Your task to perform on an android device: open app "Yahoo Mail" (install if not already installed) and enter user name: "lawsuit@inbox.com" and password: "pooch" Image 0: 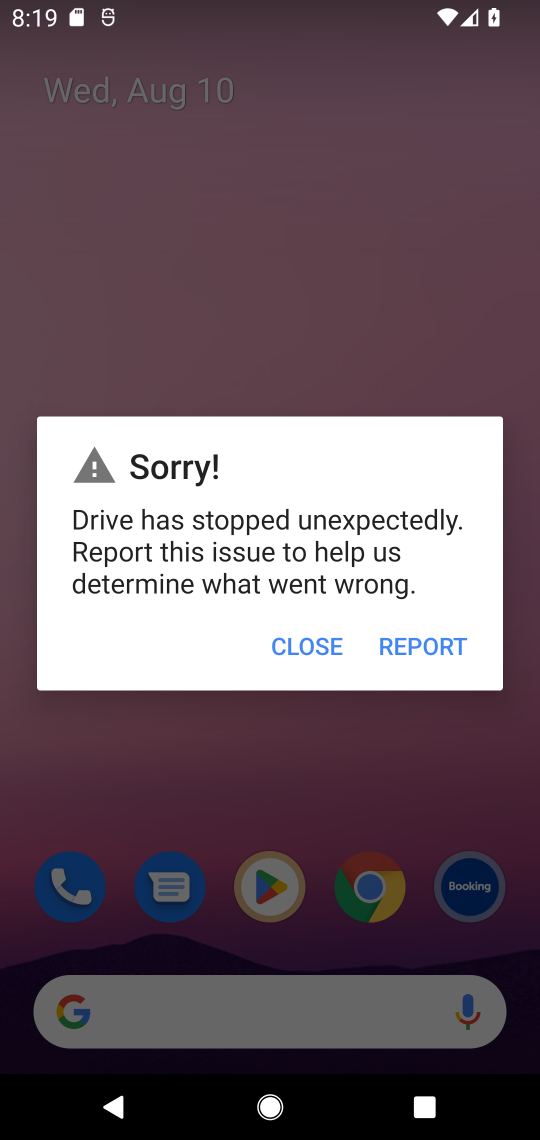
Step 0: click (302, 667)
Your task to perform on an android device: open app "Yahoo Mail" (install if not already installed) and enter user name: "lawsuit@inbox.com" and password: "pooch" Image 1: 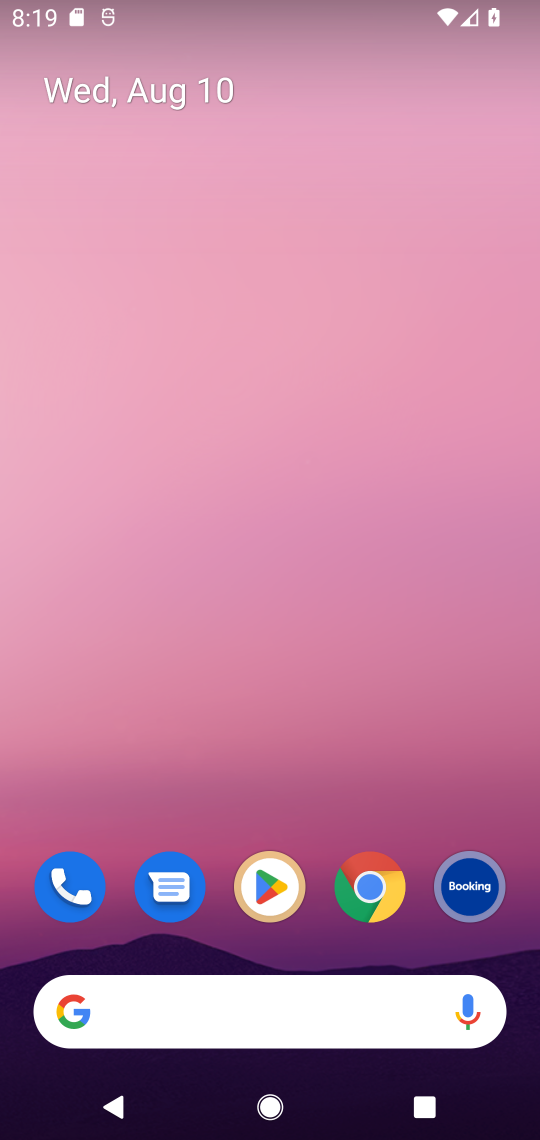
Step 1: click (275, 860)
Your task to perform on an android device: open app "Yahoo Mail" (install if not already installed) and enter user name: "lawsuit@inbox.com" and password: "pooch" Image 2: 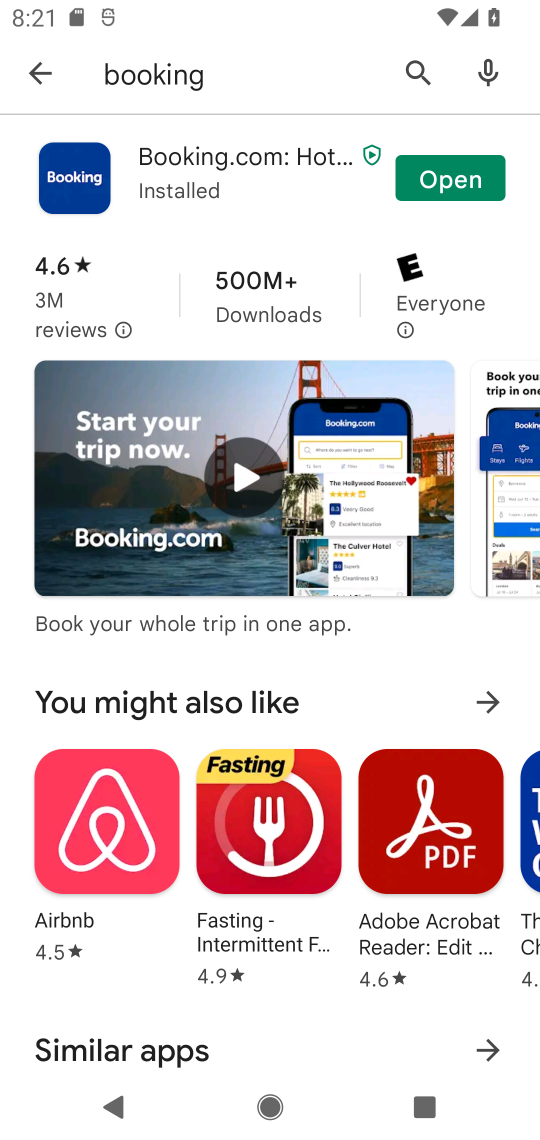
Step 2: click (425, 82)
Your task to perform on an android device: open app "Yahoo Mail" (install if not already installed) and enter user name: "lawsuit@inbox.com" and password: "pooch" Image 3: 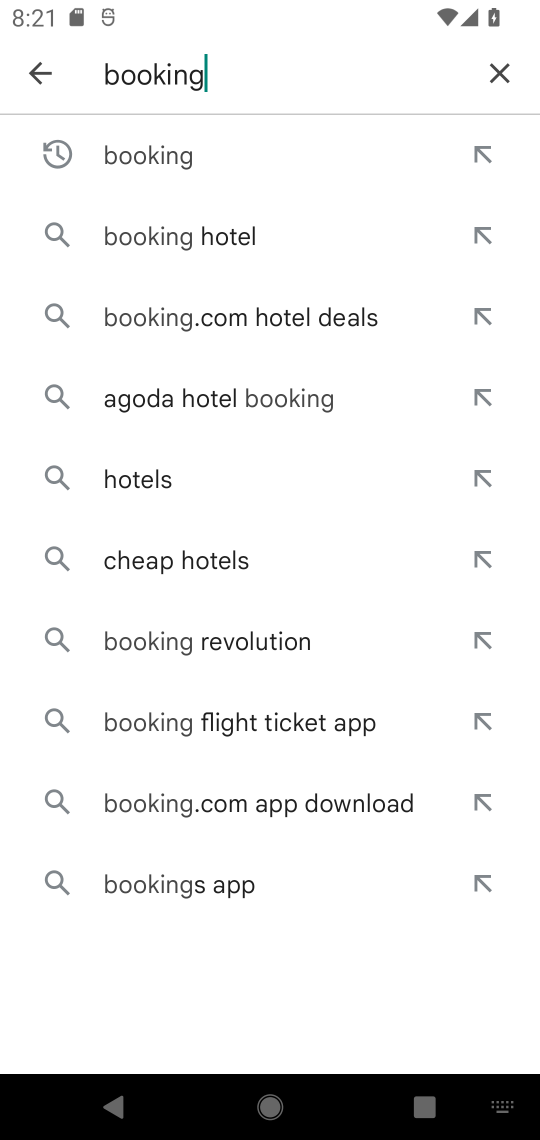
Step 3: click (514, 90)
Your task to perform on an android device: open app "Yahoo Mail" (install if not already installed) and enter user name: "lawsuit@inbox.com" and password: "pooch" Image 4: 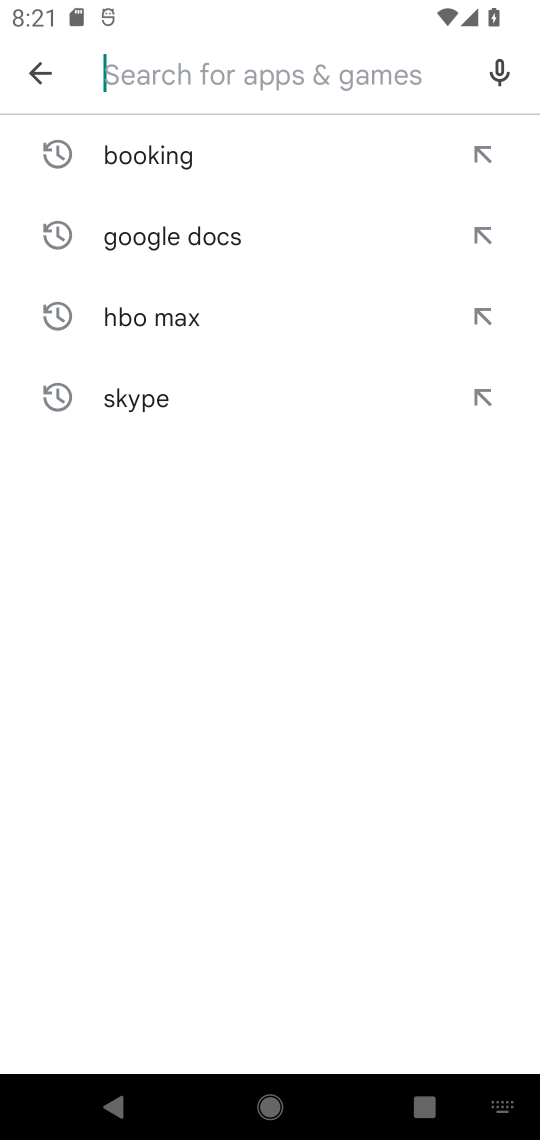
Step 4: type "yahoo"
Your task to perform on an android device: open app "Yahoo Mail" (install if not already installed) and enter user name: "lawsuit@inbox.com" and password: "pooch" Image 5: 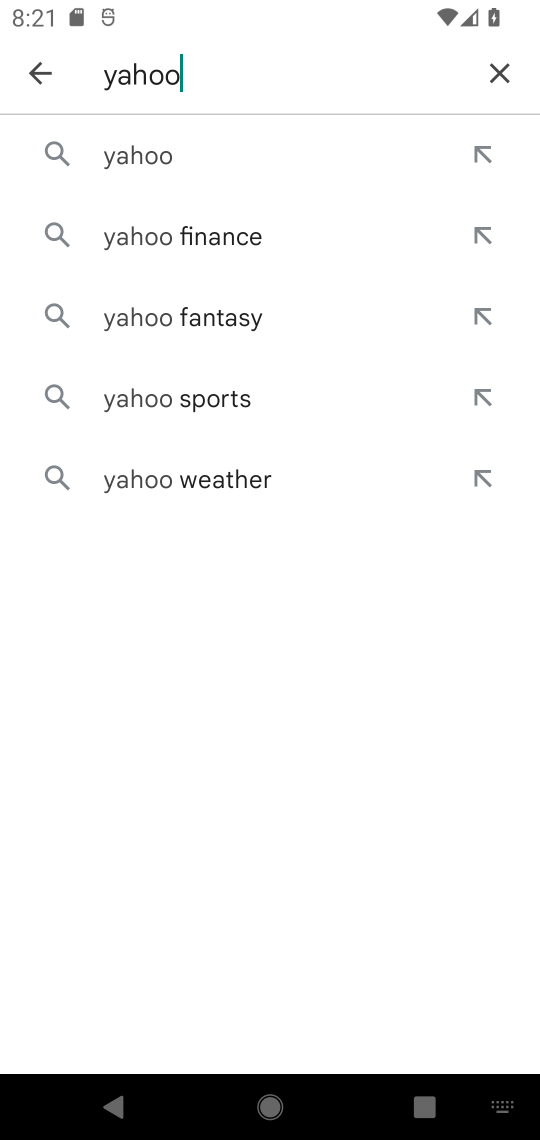
Step 5: click (206, 151)
Your task to perform on an android device: open app "Yahoo Mail" (install if not already installed) and enter user name: "lawsuit@inbox.com" and password: "pooch" Image 6: 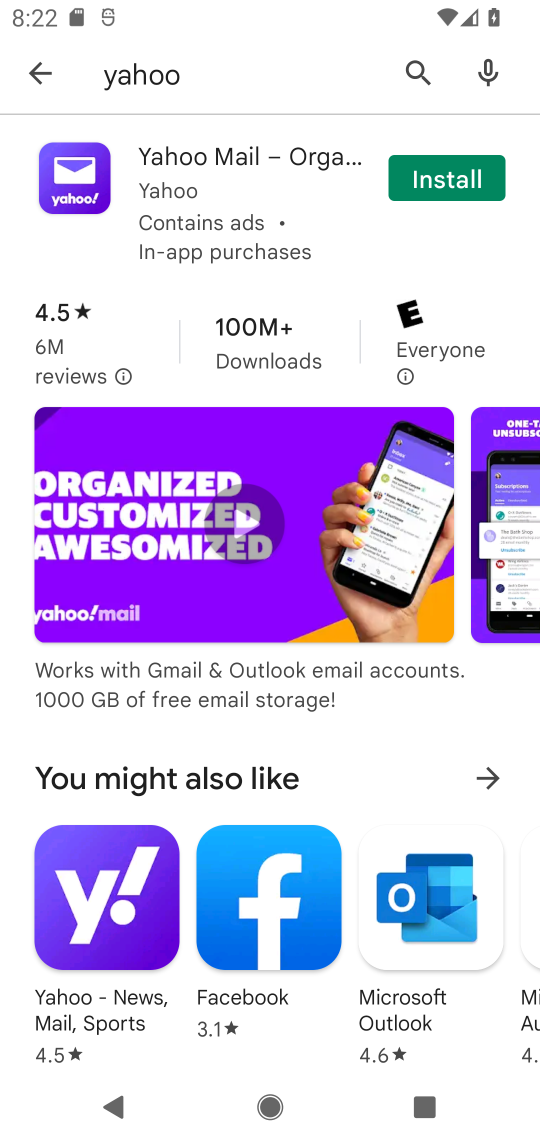
Step 6: click (438, 178)
Your task to perform on an android device: open app "Yahoo Mail" (install if not already installed) and enter user name: "lawsuit@inbox.com" and password: "pooch" Image 7: 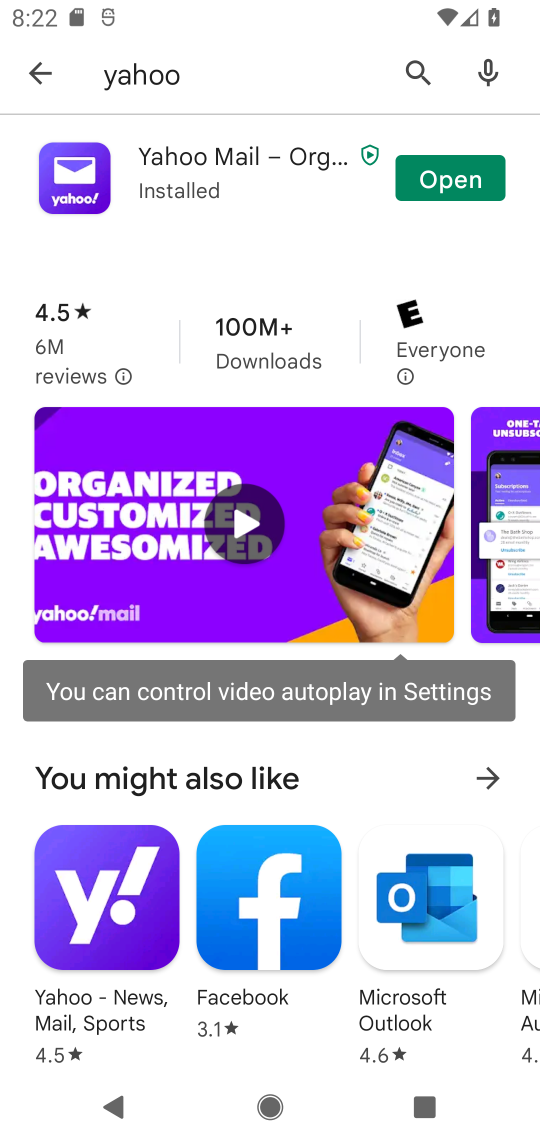
Step 7: click (456, 189)
Your task to perform on an android device: open app "Yahoo Mail" (install if not already installed) and enter user name: "lawsuit@inbox.com" and password: "pooch" Image 8: 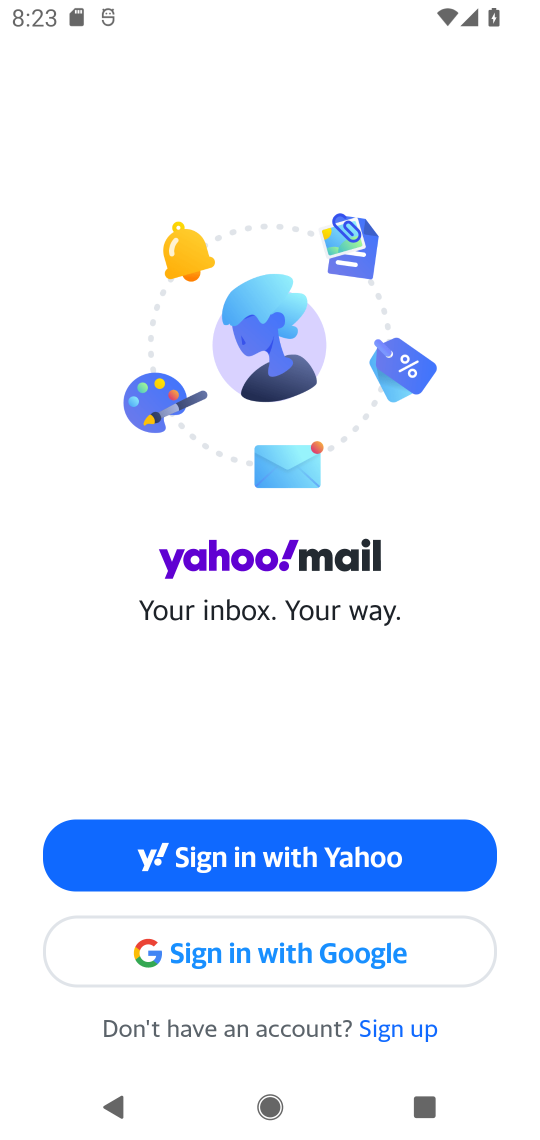
Step 8: click (310, 865)
Your task to perform on an android device: open app "Yahoo Mail" (install if not already installed) and enter user name: "lawsuit@inbox.com" and password: "pooch" Image 9: 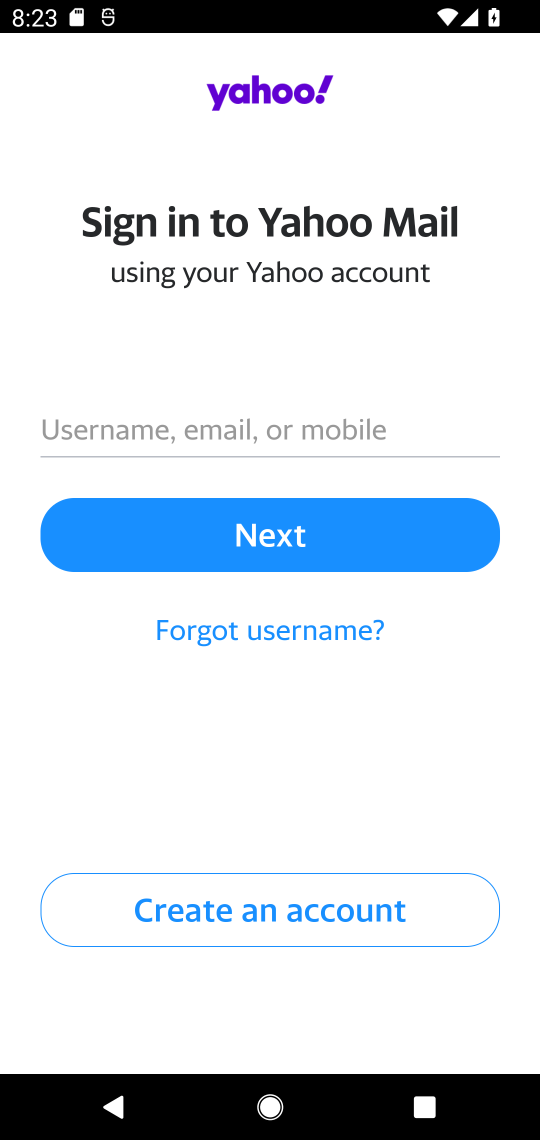
Step 9: click (280, 436)
Your task to perform on an android device: open app "Yahoo Mail" (install if not already installed) and enter user name: "lawsuit@inbox.com" and password: "pooch" Image 10: 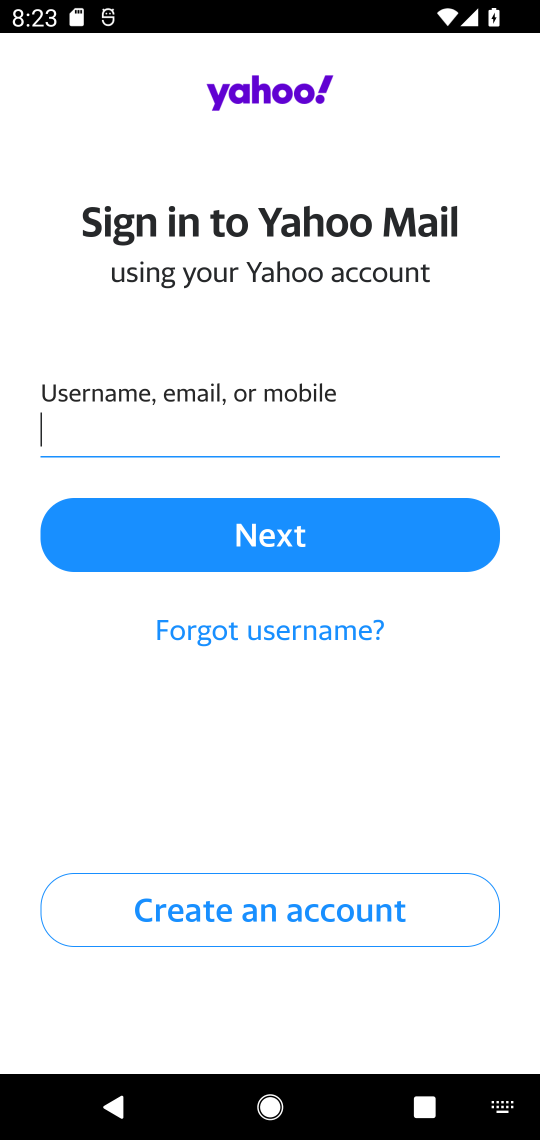
Step 10: click (414, 413)
Your task to perform on an android device: open app "Yahoo Mail" (install if not already installed) and enter user name: "lawsuit@inbox.com" and password: "pooch" Image 11: 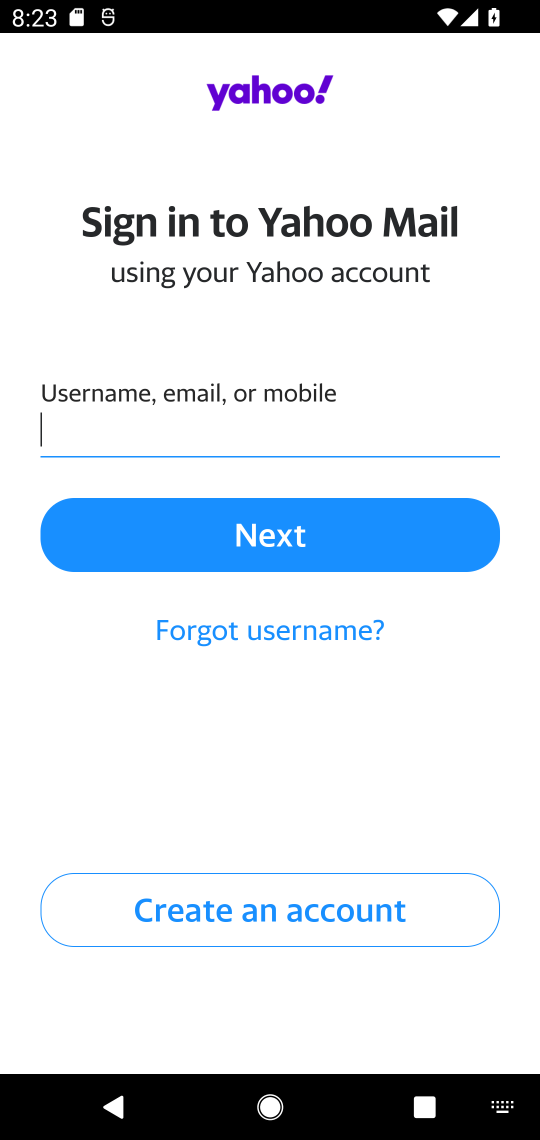
Step 11: type "lawsuit@inbox.com"
Your task to perform on an android device: open app "Yahoo Mail" (install if not already installed) and enter user name: "lawsuit@inbox.com" and password: "pooch" Image 12: 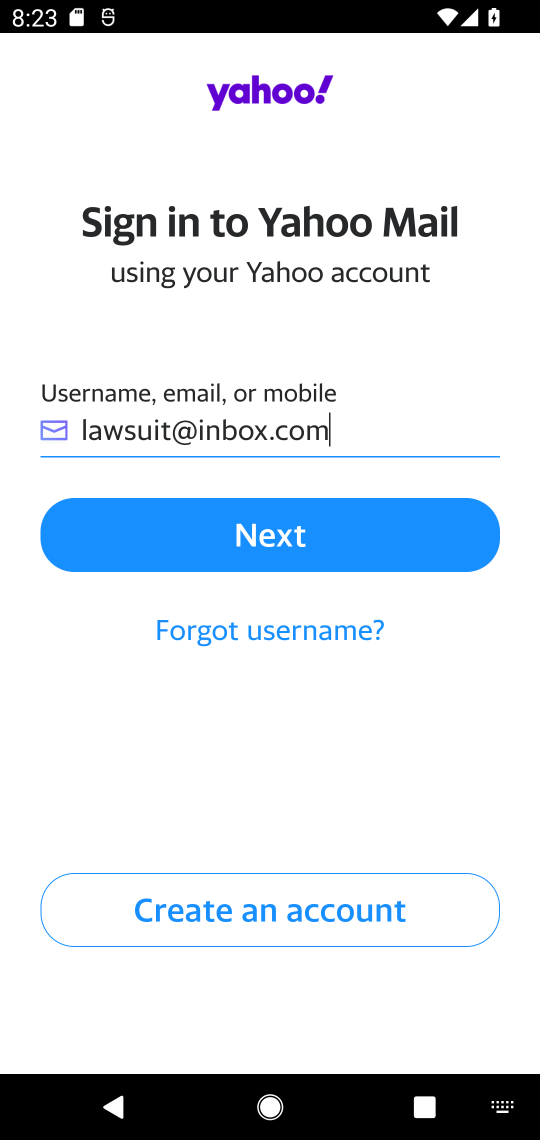
Step 12: click (317, 527)
Your task to perform on an android device: open app "Yahoo Mail" (install if not already installed) and enter user name: "lawsuit@inbox.com" and password: "pooch" Image 13: 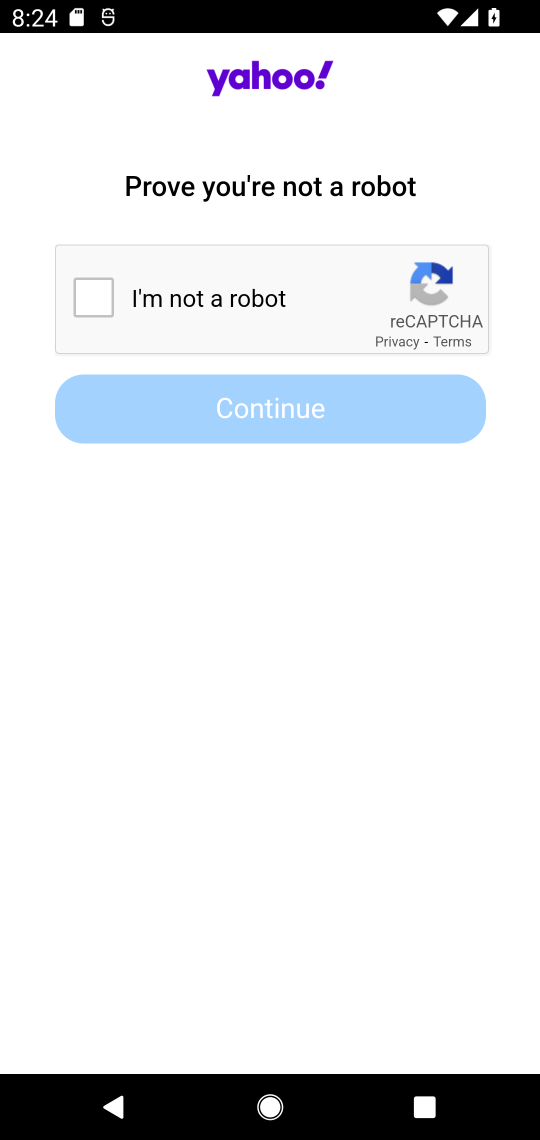
Step 13: click (189, 319)
Your task to perform on an android device: open app "Yahoo Mail" (install if not already installed) and enter user name: "lawsuit@inbox.com" and password: "pooch" Image 14: 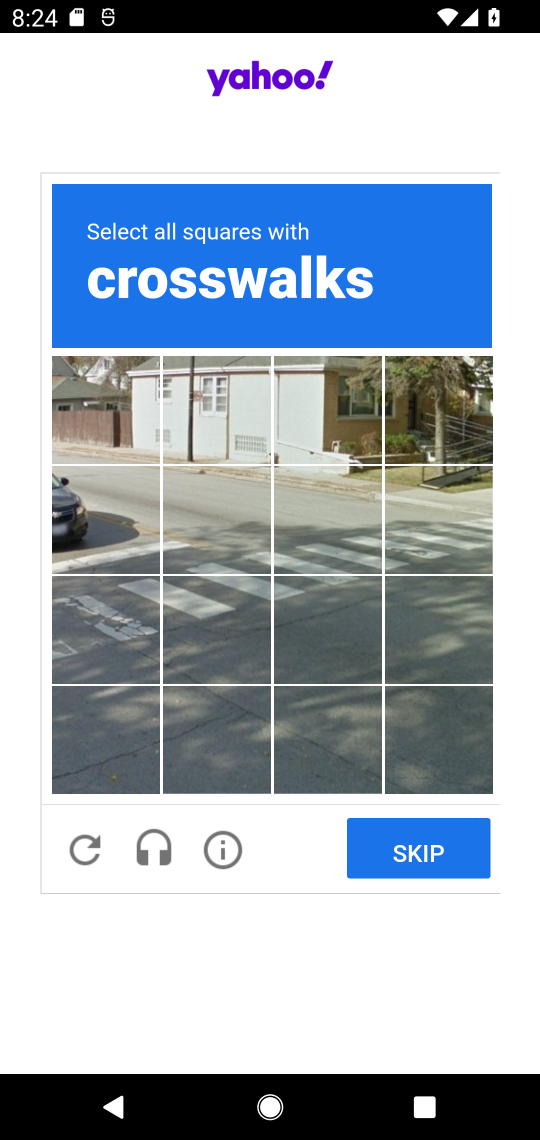
Step 14: click (128, 656)
Your task to perform on an android device: open app "Yahoo Mail" (install if not already installed) and enter user name: "lawsuit@inbox.com" and password: "pooch" Image 15: 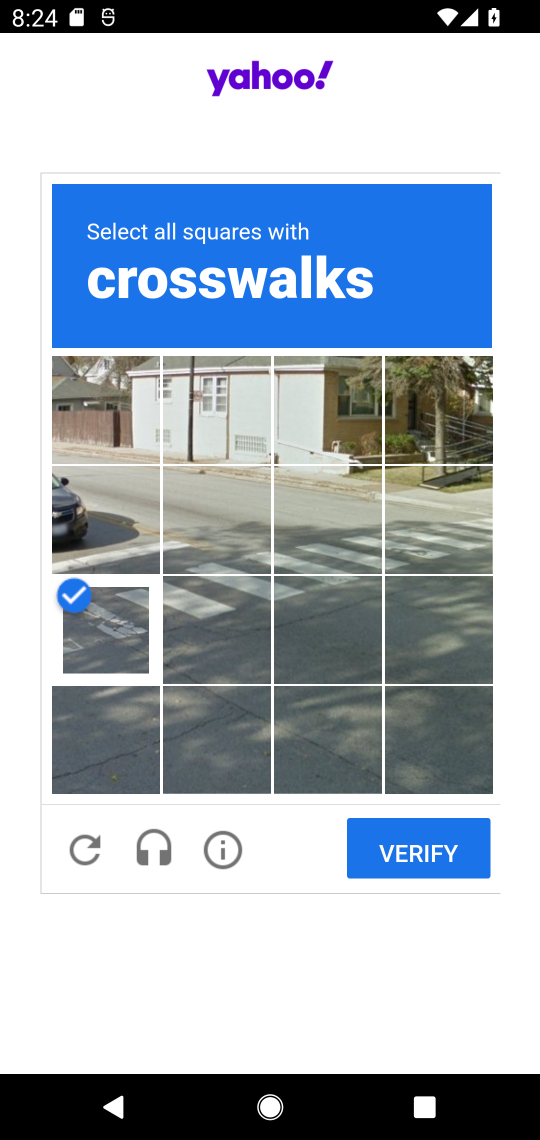
Step 15: click (208, 639)
Your task to perform on an android device: open app "Yahoo Mail" (install if not already installed) and enter user name: "lawsuit@inbox.com" and password: "pooch" Image 16: 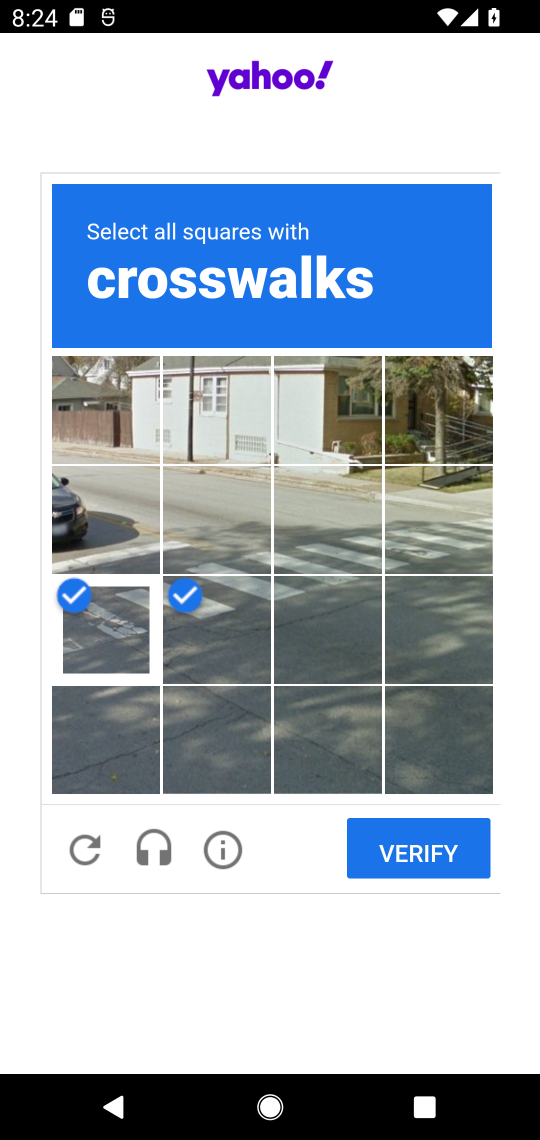
Step 16: click (308, 630)
Your task to perform on an android device: open app "Yahoo Mail" (install if not already installed) and enter user name: "lawsuit@inbox.com" and password: "pooch" Image 17: 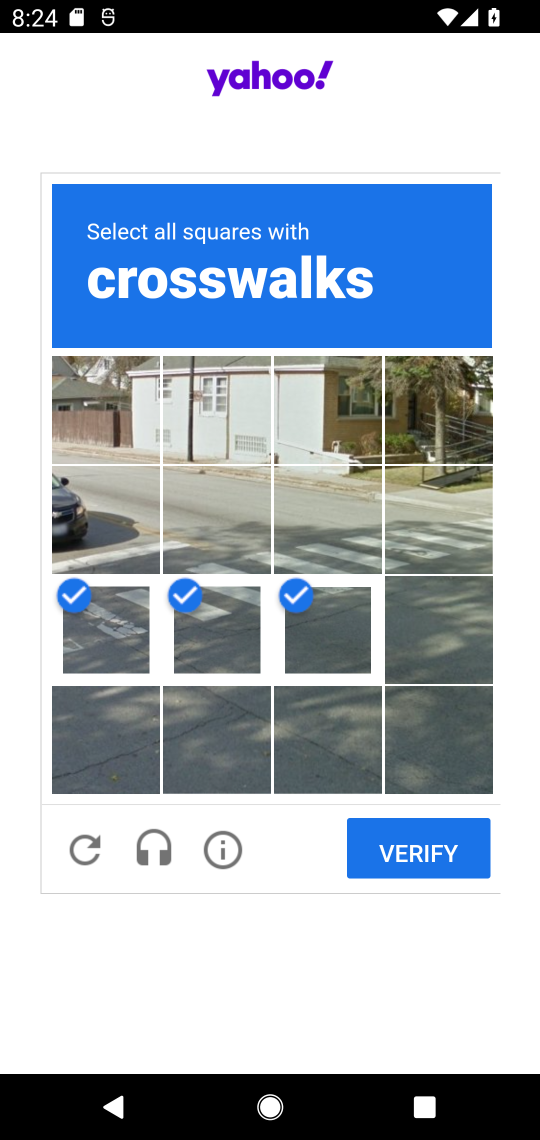
Step 17: click (408, 515)
Your task to perform on an android device: open app "Yahoo Mail" (install if not already installed) and enter user name: "lawsuit@inbox.com" and password: "pooch" Image 18: 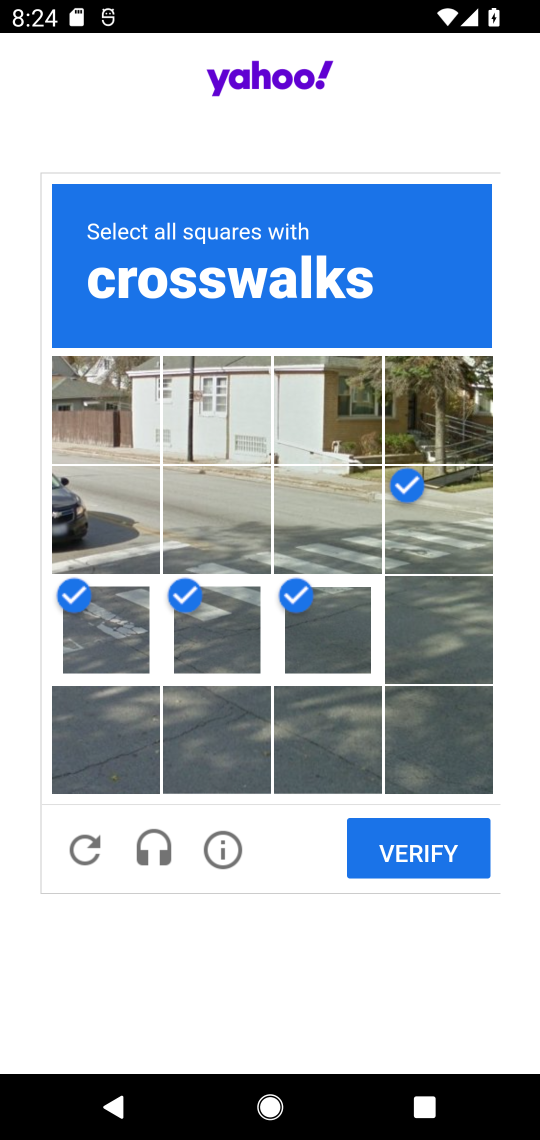
Step 18: click (347, 519)
Your task to perform on an android device: open app "Yahoo Mail" (install if not already installed) and enter user name: "lawsuit@inbox.com" and password: "pooch" Image 19: 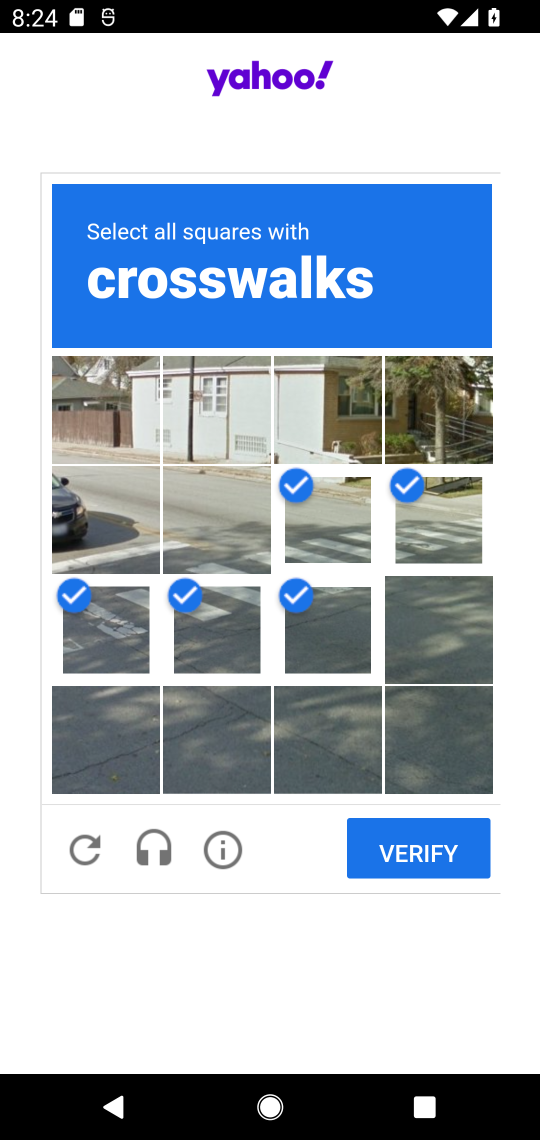
Step 19: click (426, 837)
Your task to perform on an android device: open app "Yahoo Mail" (install if not already installed) and enter user name: "lawsuit@inbox.com" and password: "pooch" Image 20: 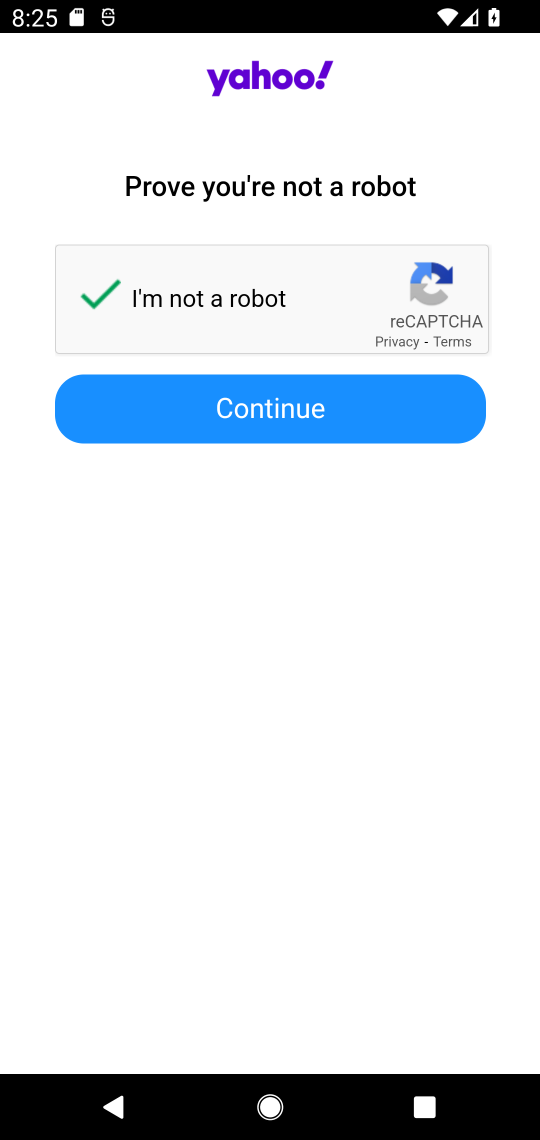
Step 20: click (267, 414)
Your task to perform on an android device: open app "Yahoo Mail" (install if not already installed) and enter user name: "lawsuit@inbox.com" and password: "pooch" Image 21: 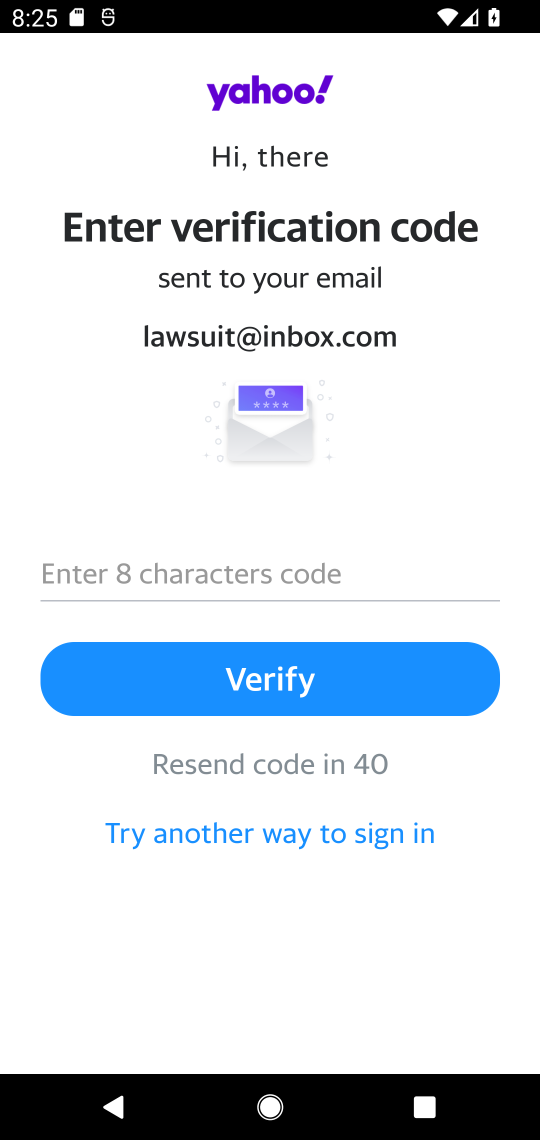
Step 21: click (392, 563)
Your task to perform on an android device: open app "Yahoo Mail" (install if not already installed) and enter user name: "lawsuit@inbox.com" and password: "pooch" Image 22: 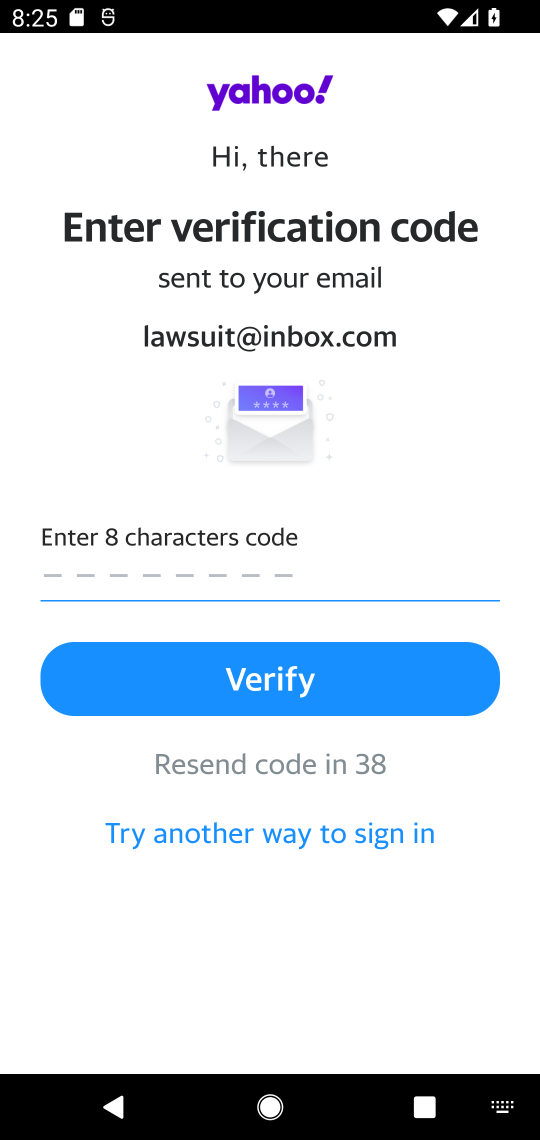
Step 22: type "pooch"
Your task to perform on an android device: open app "Yahoo Mail" (install if not already installed) and enter user name: "lawsuit@inbox.com" and password: "pooch" Image 23: 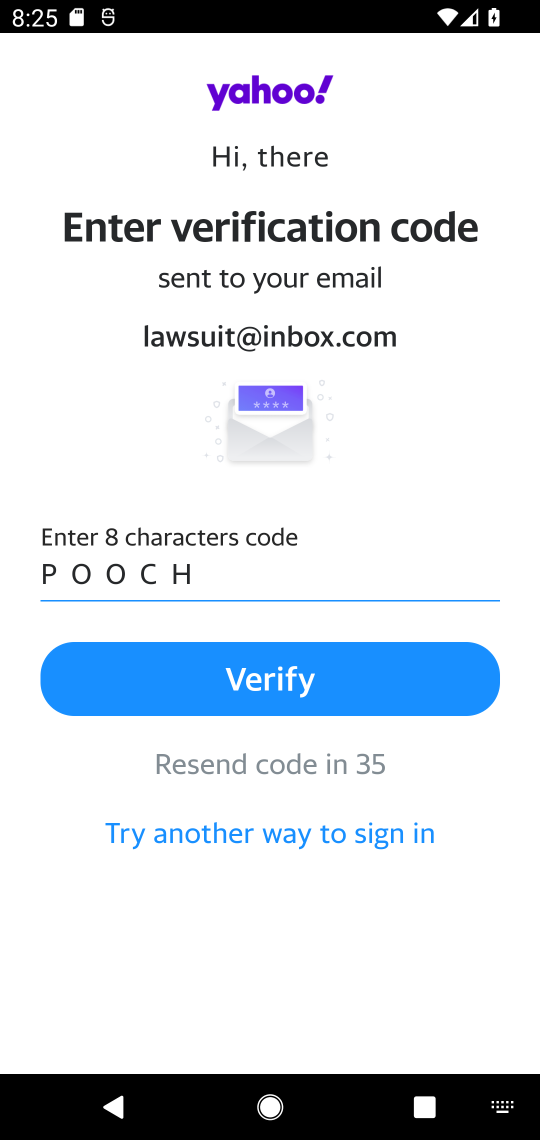
Step 23: click (178, 670)
Your task to perform on an android device: open app "Yahoo Mail" (install if not already installed) and enter user name: "lawsuit@inbox.com" and password: "pooch" Image 24: 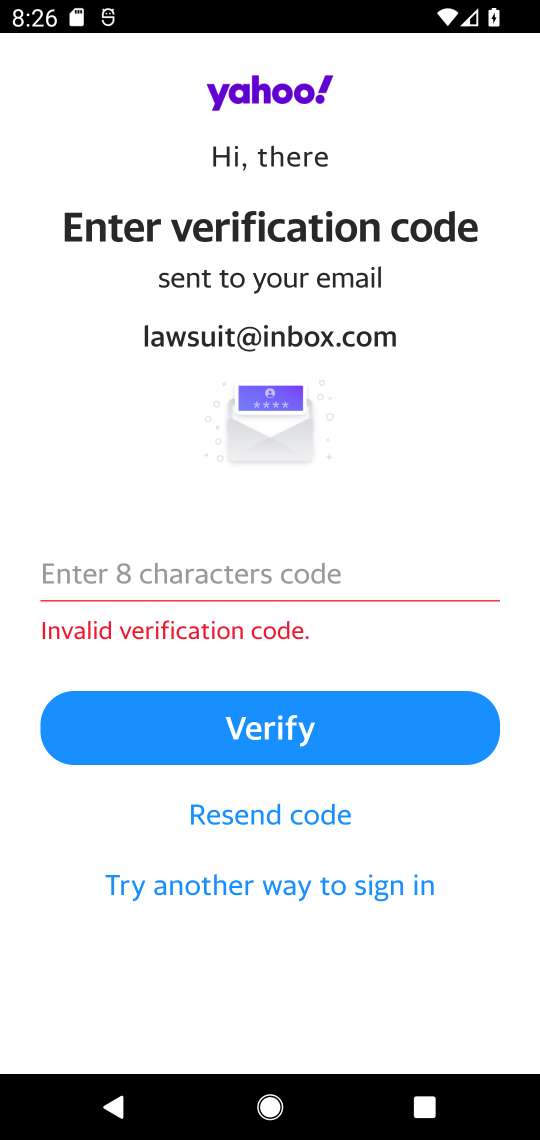
Step 24: click (338, 877)
Your task to perform on an android device: open app "Yahoo Mail" (install if not already installed) and enter user name: "lawsuit@inbox.com" and password: "pooch" Image 25: 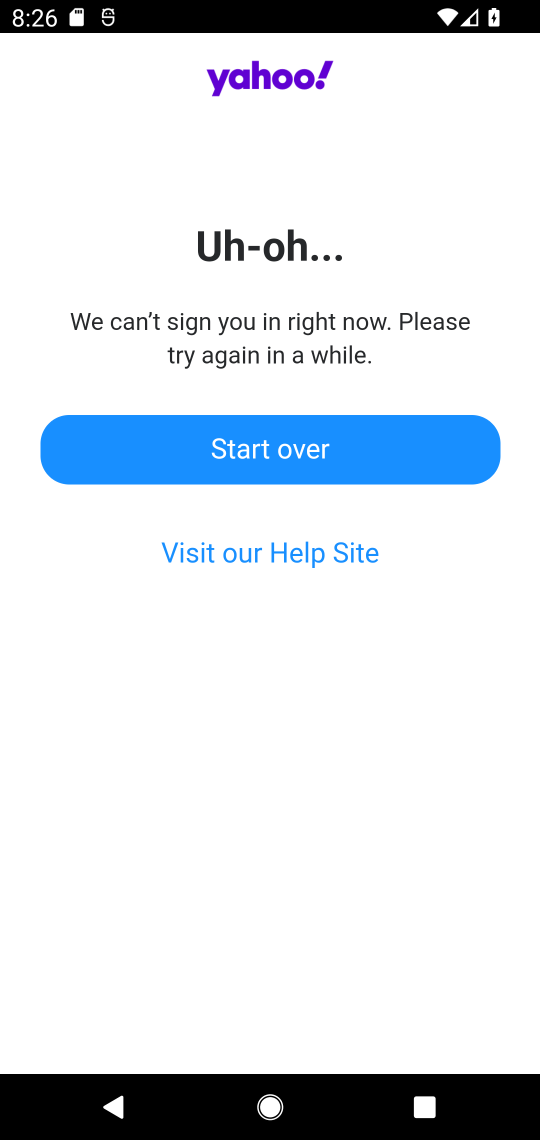
Step 25: click (314, 422)
Your task to perform on an android device: open app "Yahoo Mail" (install if not already installed) and enter user name: "lawsuit@inbox.com" and password: "pooch" Image 26: 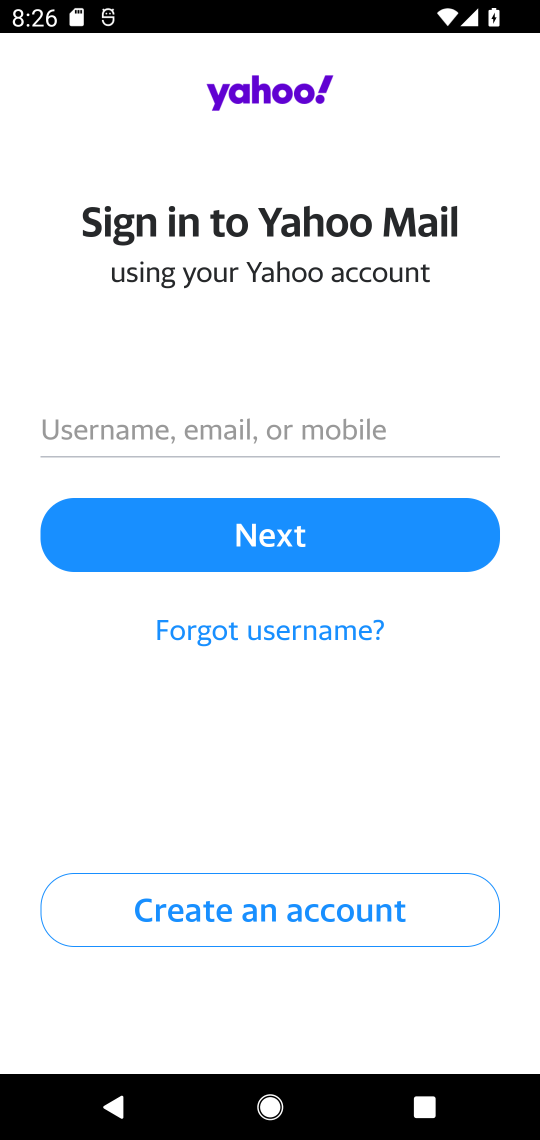
Step 26: task complete